Your task to perform on an android device: toggle data saver in the chrome app Image 0: 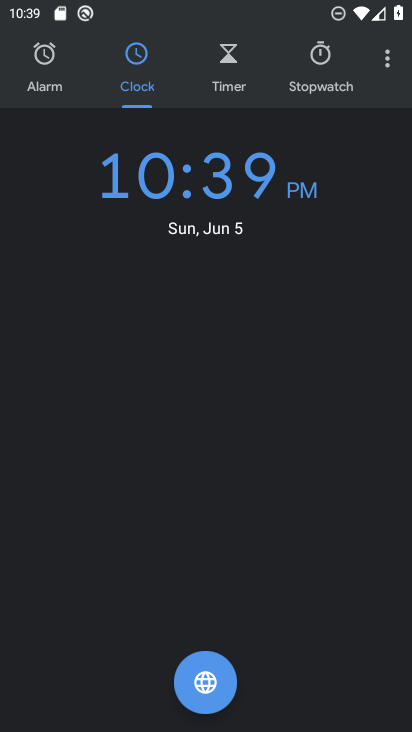
Step 0: press back button
Your task to perform on an android device: toggle data saver in the chrome app Image 1: 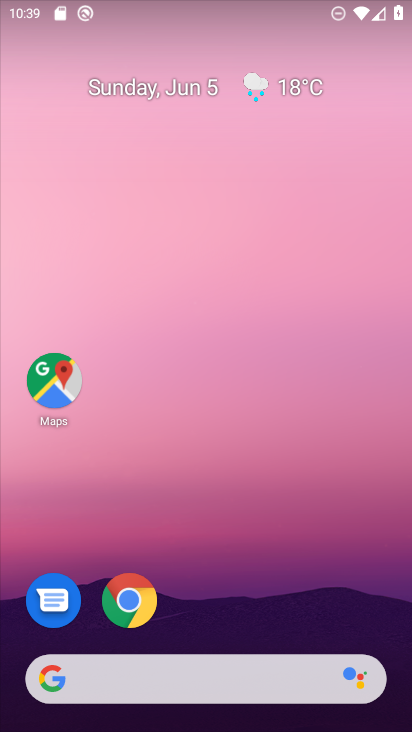
Step 1: click (133, 583)
Your task to perform on an android device: toggle data saver in the chrome app Image 2: 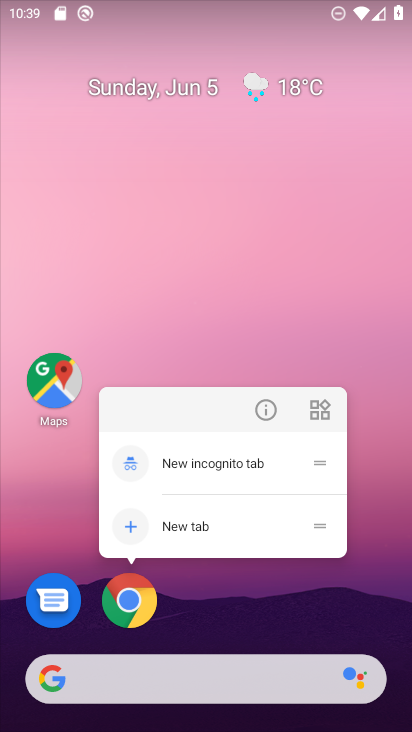
Step 2: click (134, 601)
Your task to perform on an android device: toggle data saver in the chrome app Image 3: 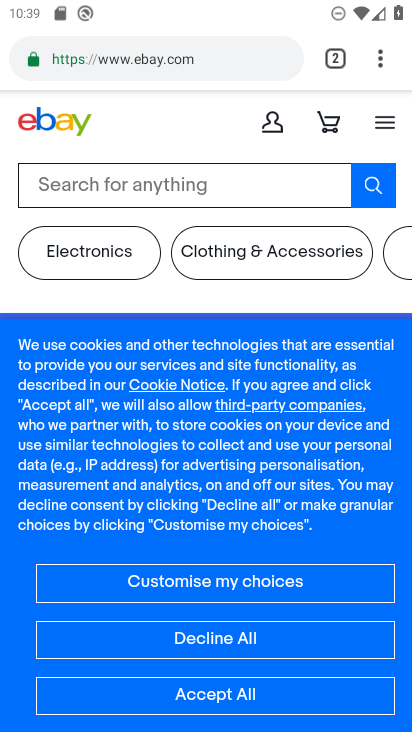
Step 3: drag from (376, 50) to (161, 629)
Your task to perform on an android device: toggle data saver in the chrome app Image 4: 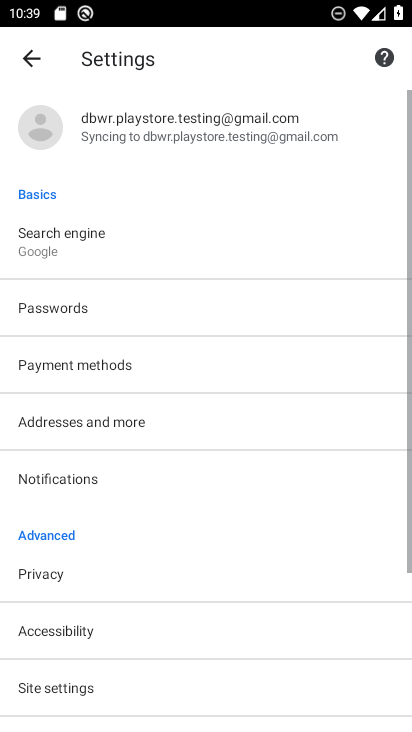
Step 4: drag from (140, 645) to (204, 204)
Your task to perform on an android device: toggle data saver in the chrome app Image 5: 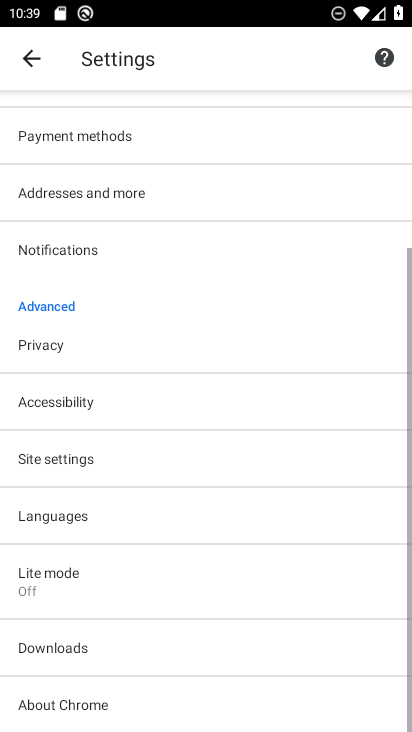
Step 5: click (29, 576)
Your task to perform on an android device: toggle data saver in the chrome app Image 6: 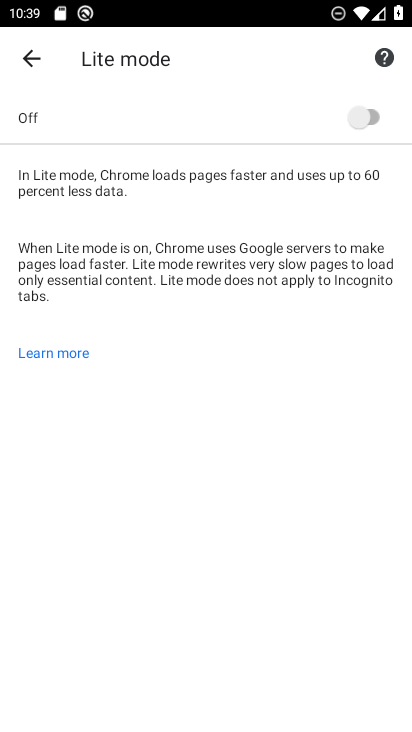
Step 6: click (359, 115)
Your task to perform on an android device: toggle data saver in the chrome app Image 7: 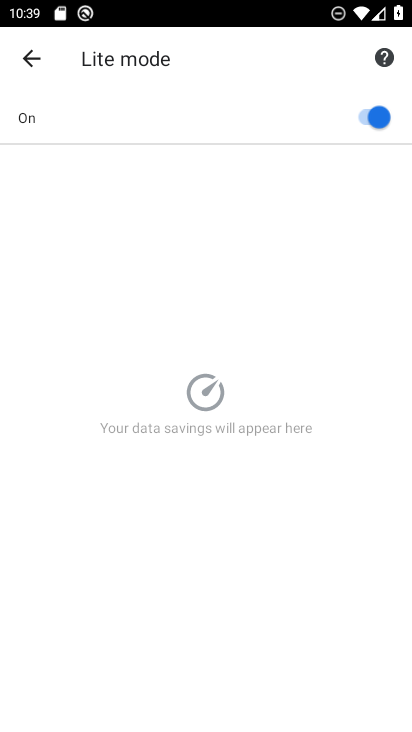
Step 7: task complete